Your task to perform on an android device: empty trash in the gmail app Image 0: 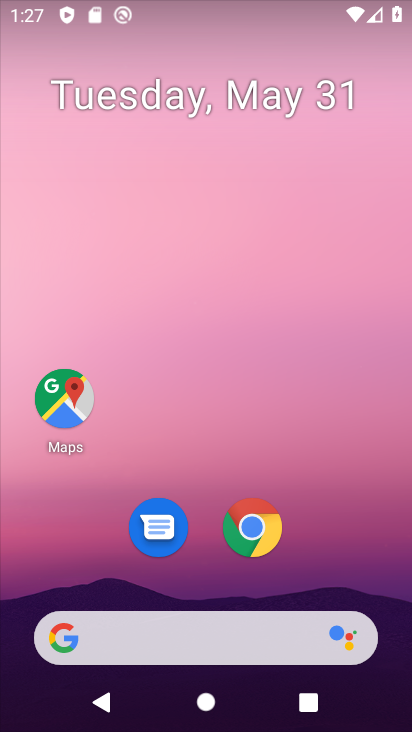
Step 0: drag from (364, 543) to (369, 17)
Your task to perform on an android device: empty trash in the gmail app Image 1: 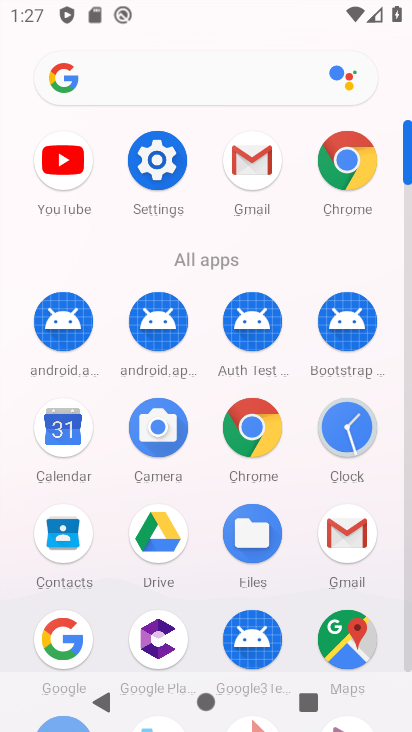
Step 1: click (252, 161)
Your task to perform on an android device: empty trash in the gmail app Image 2: 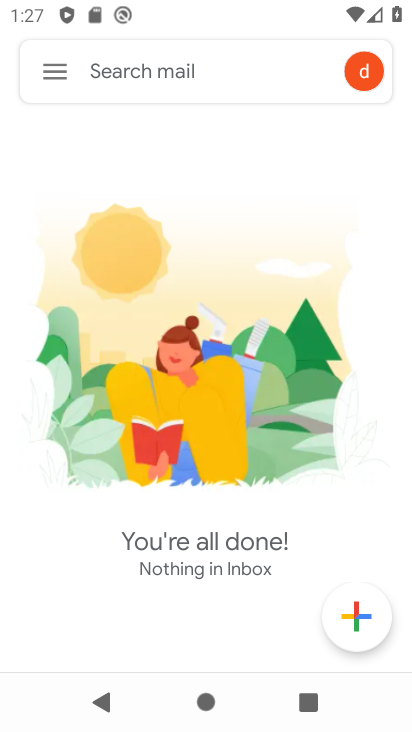
Step 2: click (62, 64)
Your task to perform on an android device: empty trash in the gmail app Image 3: 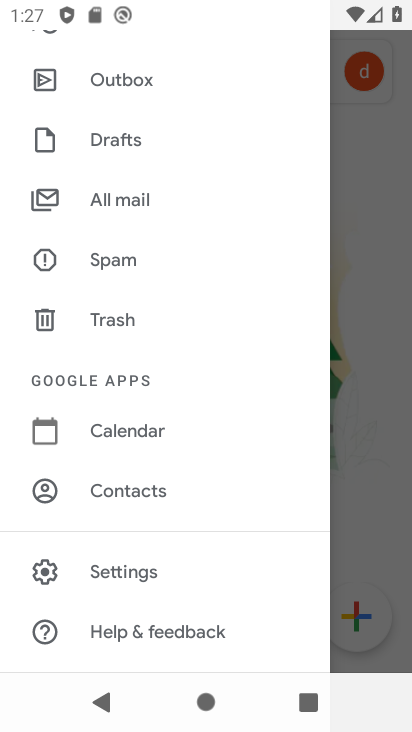
Step 3: click (97, 335)
Your task to perform on an android device: empty trash in the gmail app Image 4: 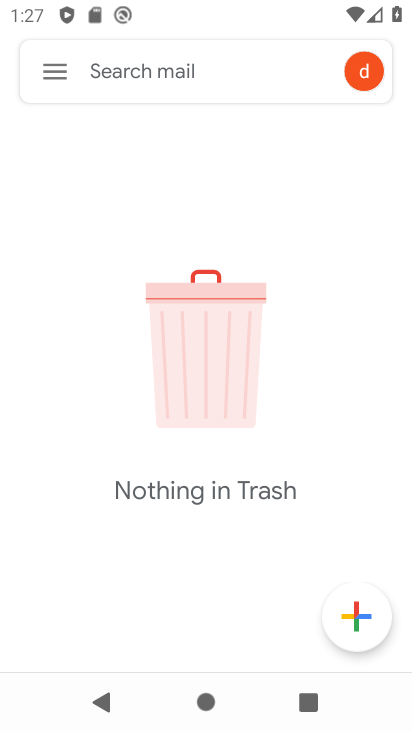
Step 4: task complete